Your task to perform on an android device: Open Google Maps Image 0: 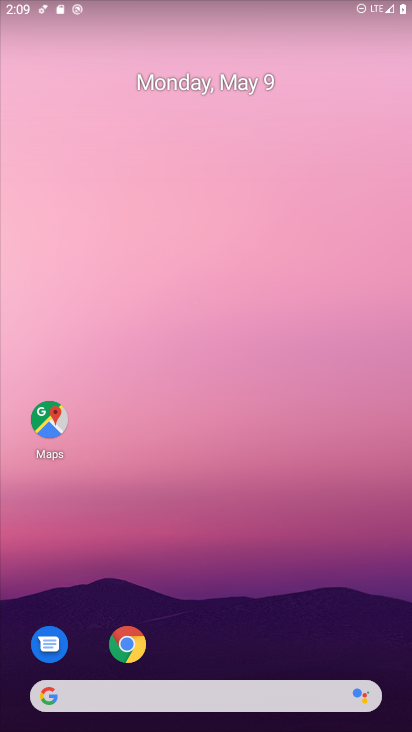
Step 0: drag from (238, 636) to (257, 196)
Your task to perform on an android device: Open Google Maps Image 1: 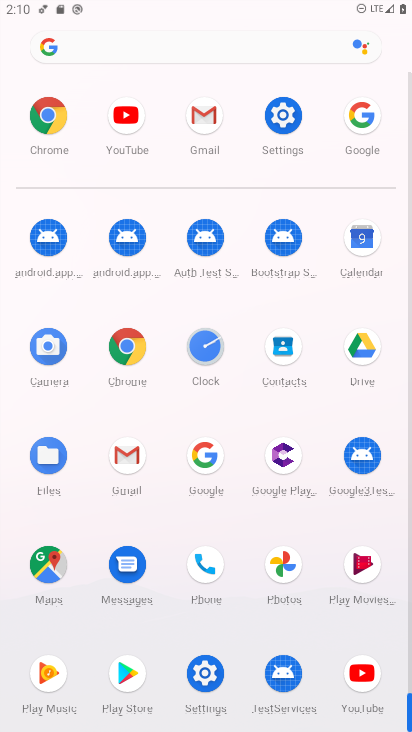
Step 1: click (43, 596)
Your task to perform on an android device: Open Google Maps Image 2: 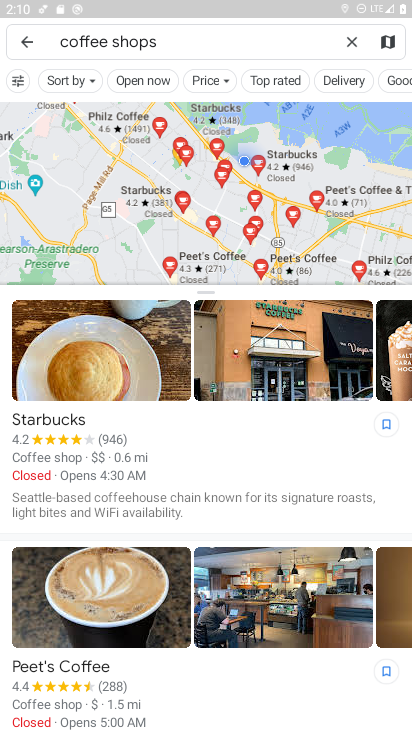
Step 2: task complete